Your task to perform on an android device: Go to accessibility settings Image 0: 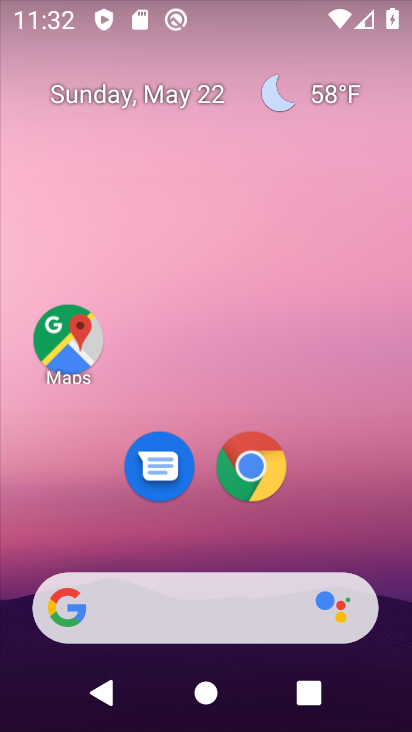
Step 0: drag from (222, 540) to (274, 11)
Your task to perform on an android device: Go to accessibility settings Image 1: 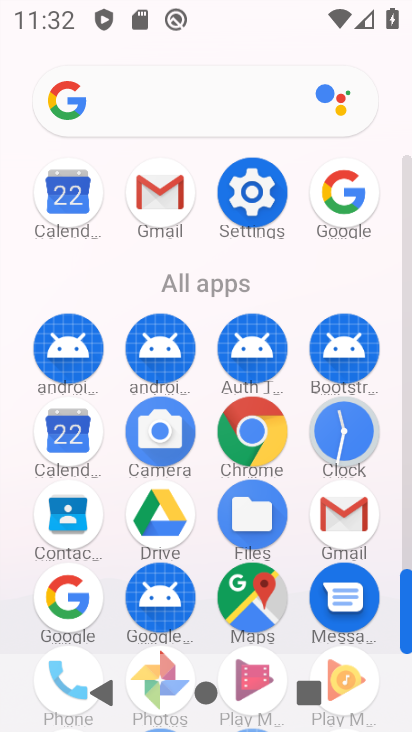
Step 1: click (254, 180)
Your task to perform on an android device: Go to accessibility settings Image 2: 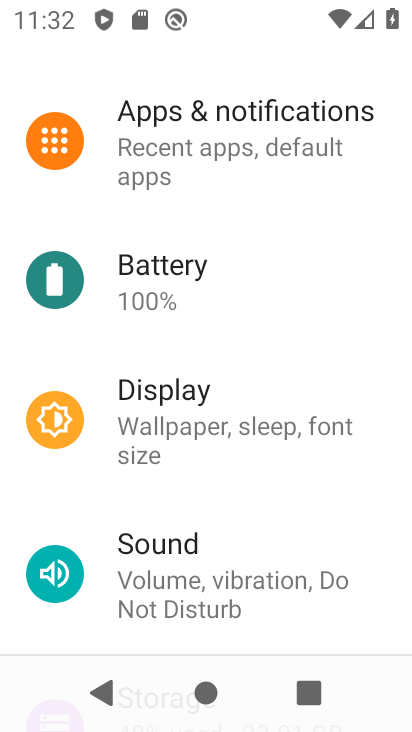
Step 2: drag from (235, 569) to (275, 14)
Your task to perform on an android device: Go to accessibility settings Image 3: 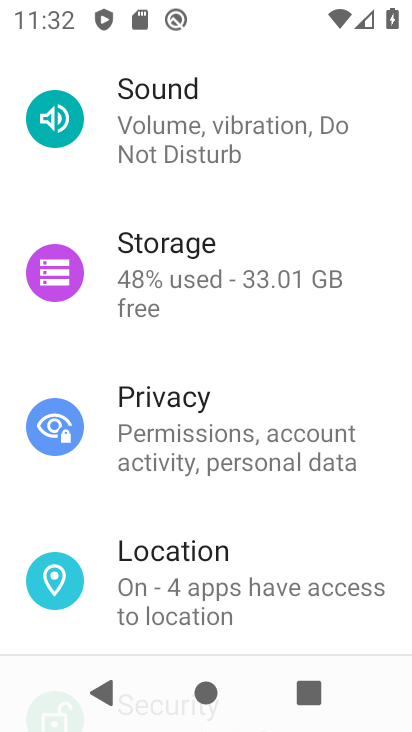
Step 3: drag from (242, 508) to (215, 28)
Your task to perform on an android device: Go to accessibility settings Image 4: 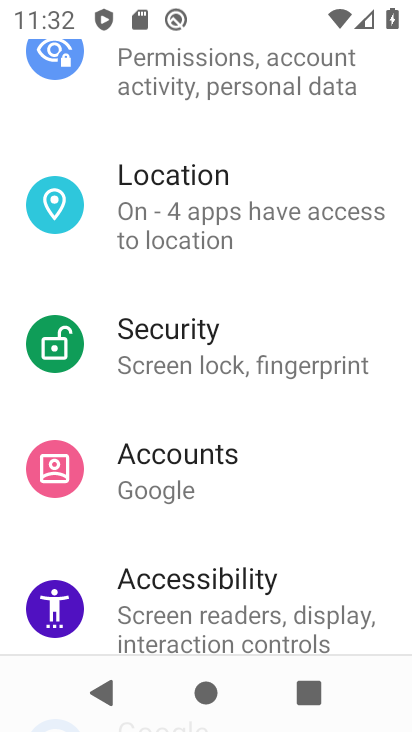
Step 4: drag from (208, 538) to (216, 359)
Your task to perform on an android device: Go to accessibility settings Image 5: 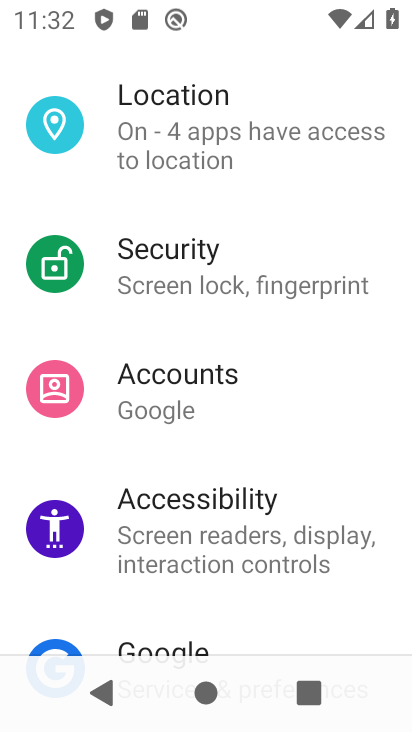
Step 5: click (189, 526)
Your task to perform on an android device: Go to accessibility settings Image 6: 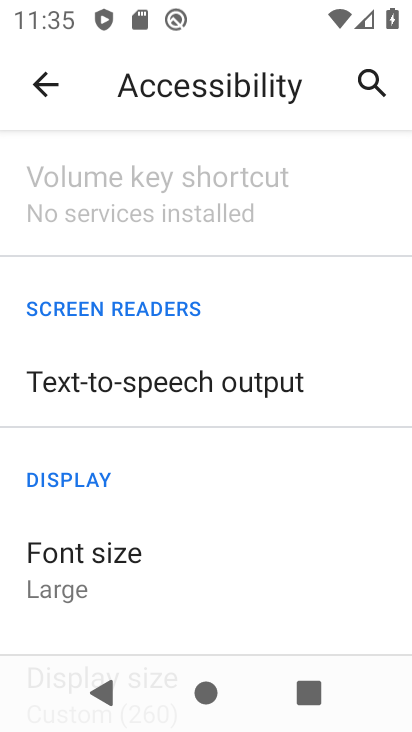
Step 6: task complete